Your task to perform on an android device: turn off location history Image 0: 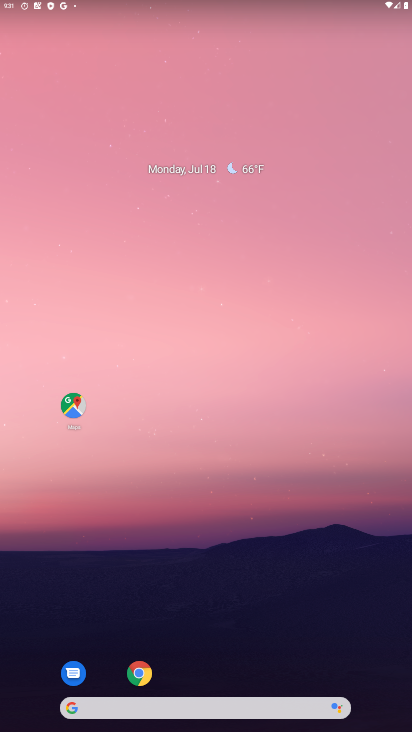
Step 0: drag from (186, 610) to (169, 117)
Your task to perform on an android device: turn off location history Image 1: 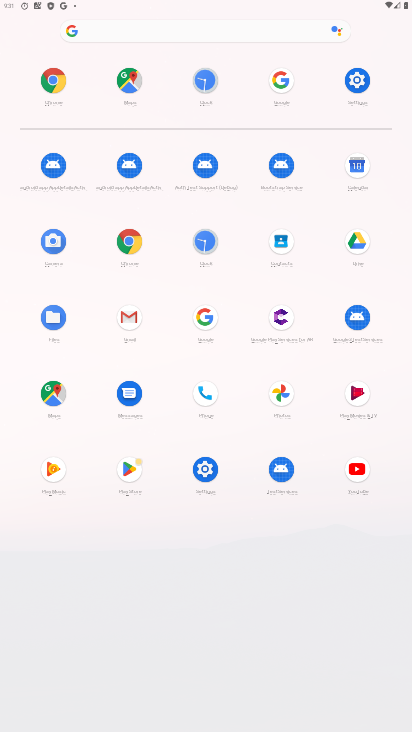
Step 1: click (356, 81)
Your task to perform on an android device: turn off location history Image 2: 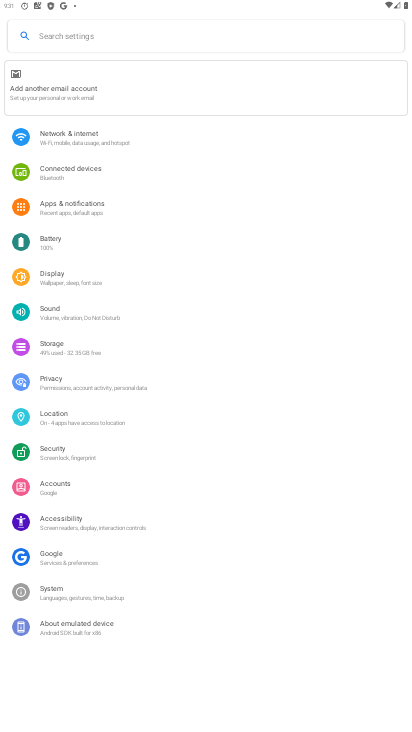
Step 2: click (62, 420)
Your task to perform on an android device: turn off location history Image 3: 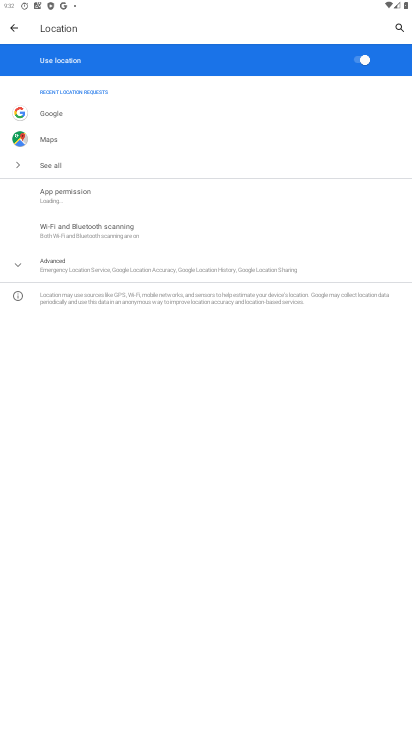
Step 3: click (60, 265)
Your task to perform on an android device: turn off location history Image 4: 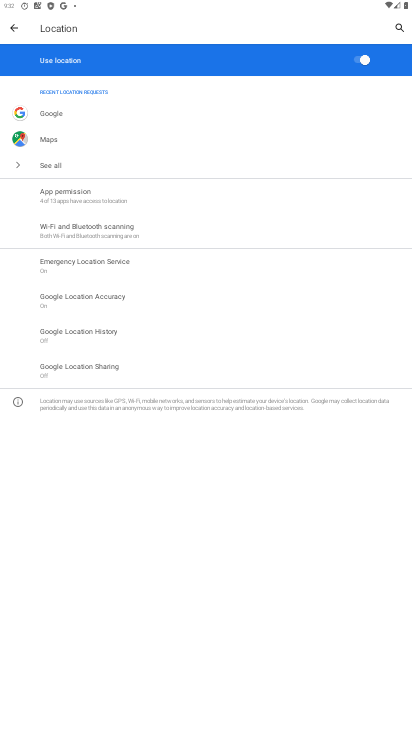
Step 4: click (98, 333)
Your task to perform on an android device: turn off location history Image 5: 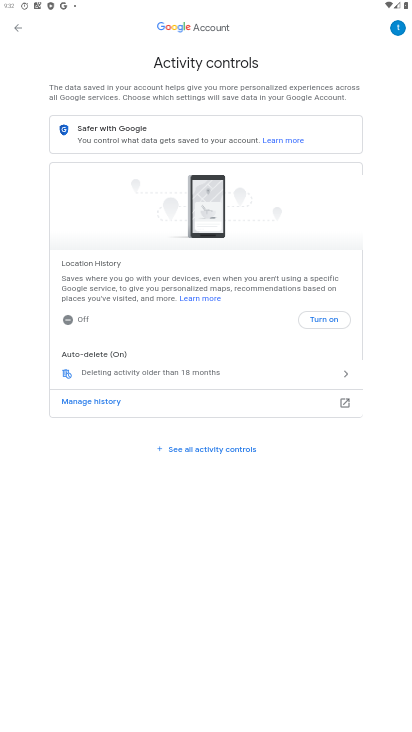
Step 5: task complete